Your task to perform on an android device: Go to privacy settings Image 0: 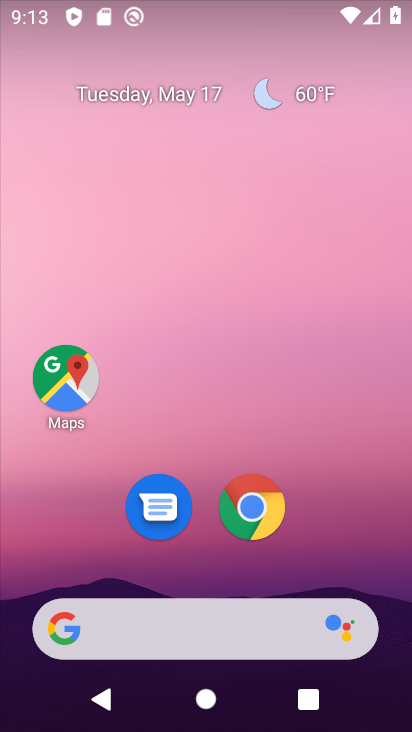
Step 0: drag from (283, 682) to (249, 257)
Your task to perform on an android device: Go to privacy settings Image 1: 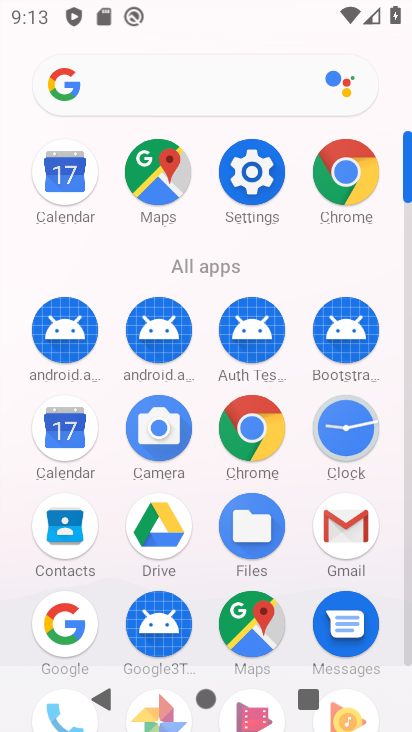
Step 1: click (250, 182)
Your task to perform on an android device: Go to privacy settings Image 2: 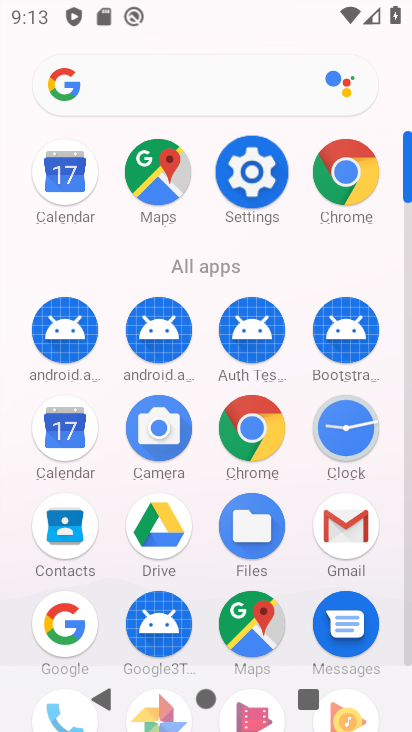
Step 2: click (250, 182)
Your task to perform on an android device: Go to privacy settings Image 3: 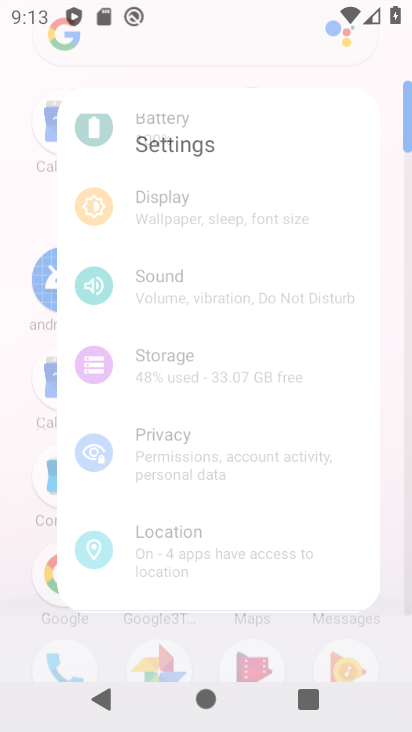
Step 3: click (250, 182)
Your task to perform on an android device: Go to privacy settings Image 4: 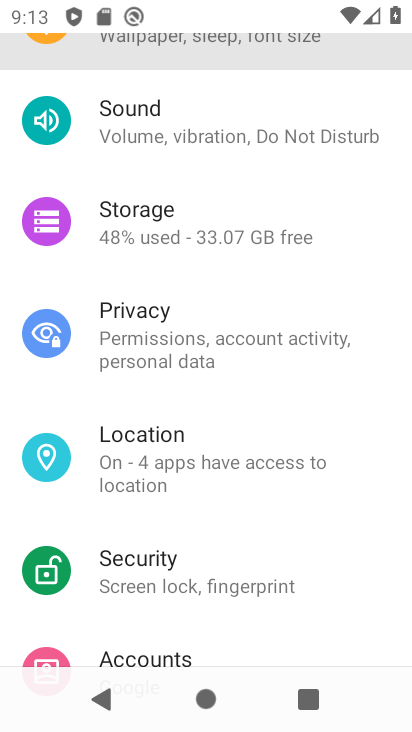
Step 4: click (250, 182)
Your task to perform on an android device: Go to privacy settings Image 5: 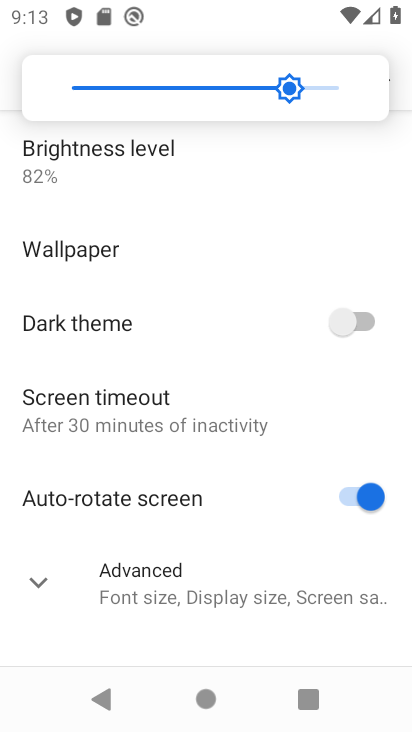
Step 5: press back button
Your task to perform on an android device: Go to privacy settings Image 6: 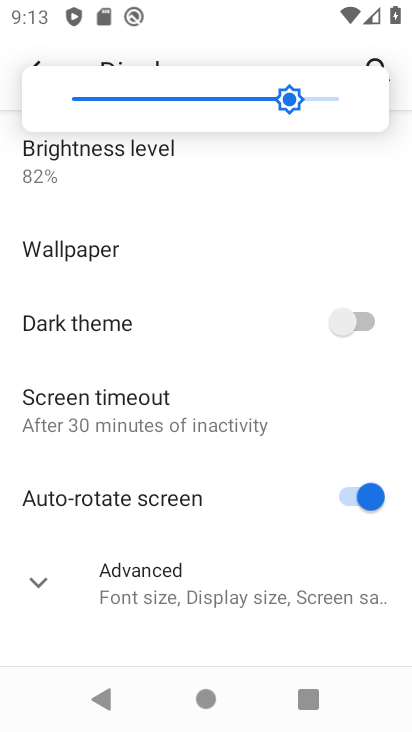
Step 6: press back button
Your task to perform on an android device: Go to privacy settings Image 7: 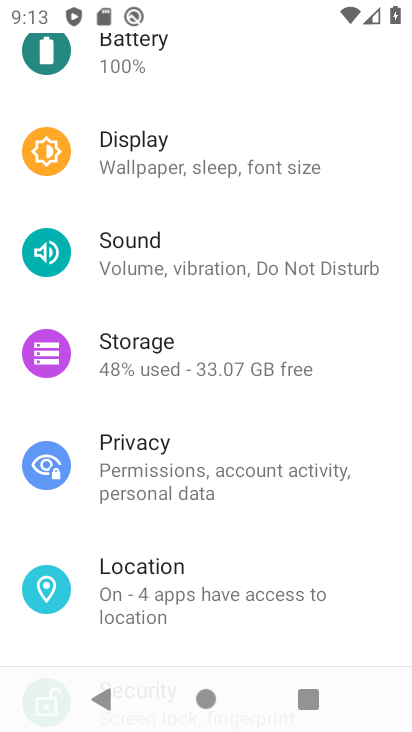
Step 7: click (141, 465)
Your task to perform on an android device: Go to privacy settings Image 8: 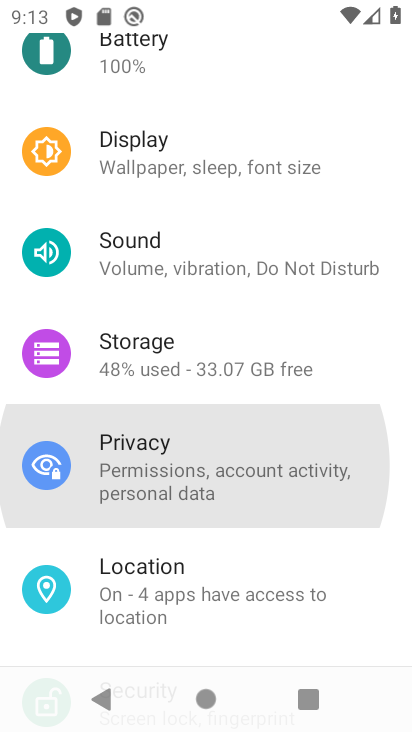
Step 8: click (141, 465)
Your task to perform on an android device: Go to privacy settings Image 9: 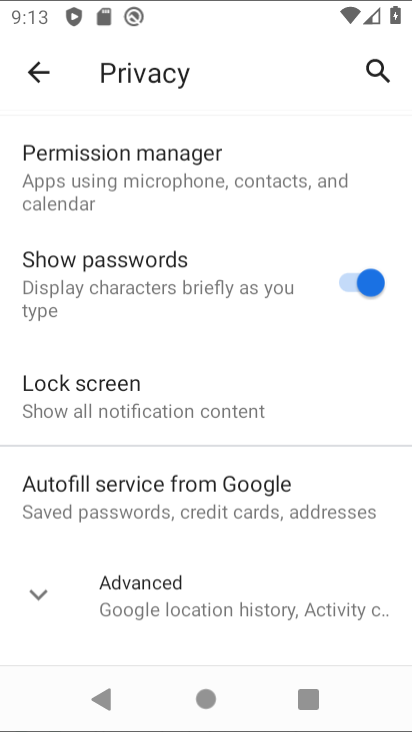
Step 9: click (143, 460)
Your task to perform on an android device: Go to privacy settings Image 10: 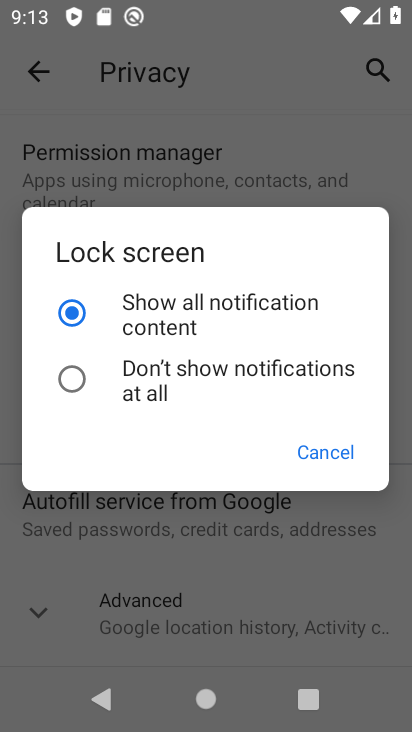
Step 10: task complete